Your task to perform on an android device: change text size in settings app Image 0: 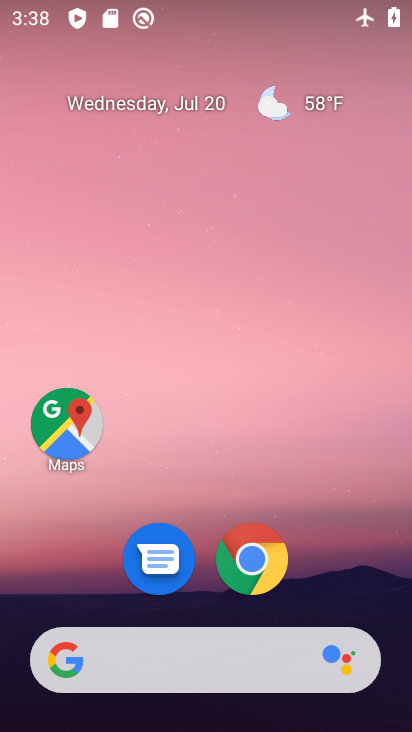
Step 0: drag from (126, 463) to (192, 2)
Your task to perform on an android device: change text size in settings app Image 1: 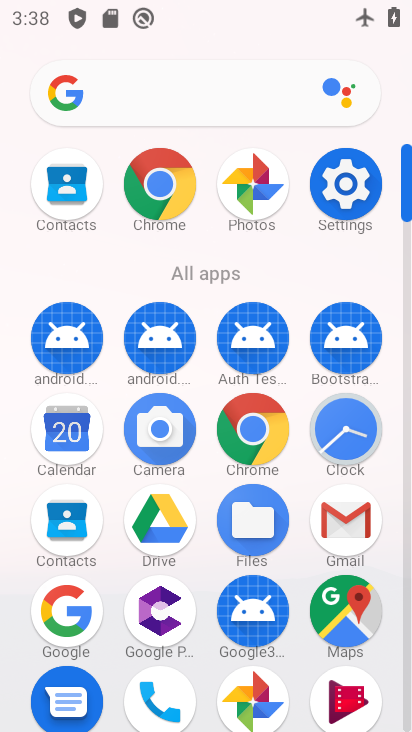
Step 1: click (356, 187)
Your task to perform on an android device: change text size in settings app Image 2: 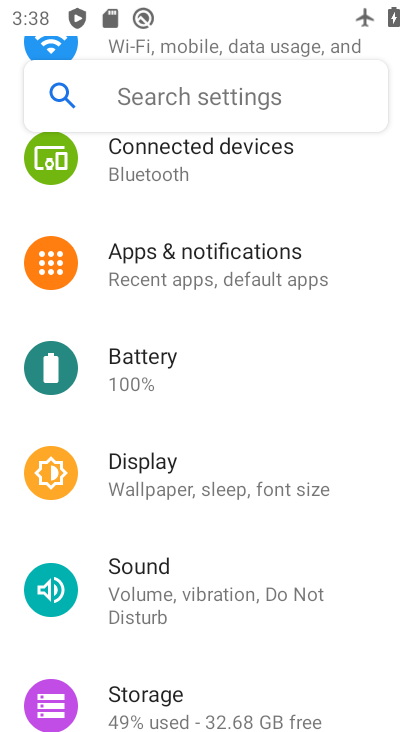
Step 2: drag from (258, 179) to (200, 618)
Your task to perform on an android device: change text size in settings app Image 3: 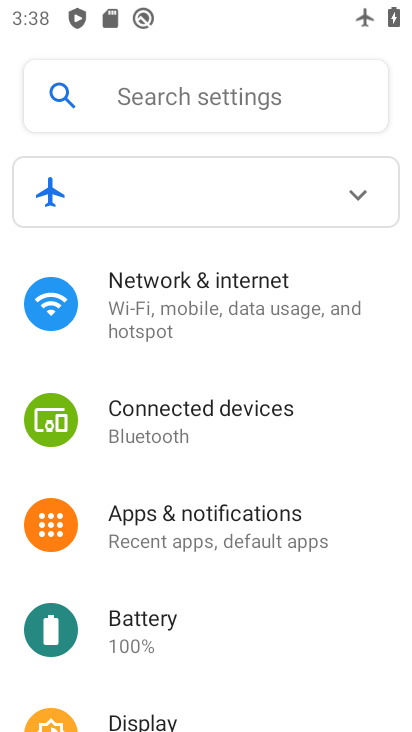
Step 3: click (158, 99)
Your task to perform on an android device: change text size in settings app Image 4: 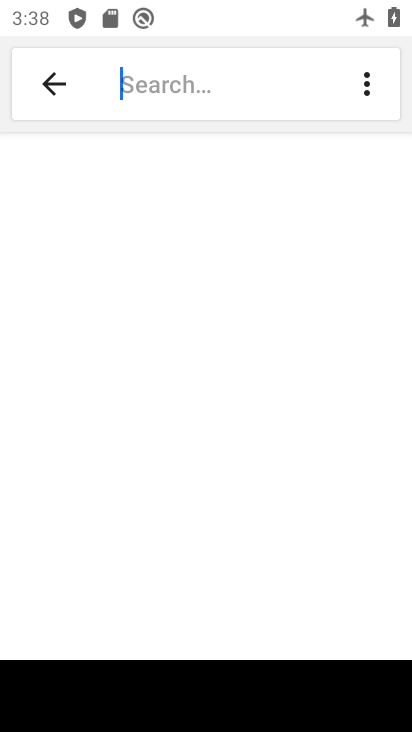
Step 4: type "text size"
Your task to perform on an android device: change text size in settings app Image 5: 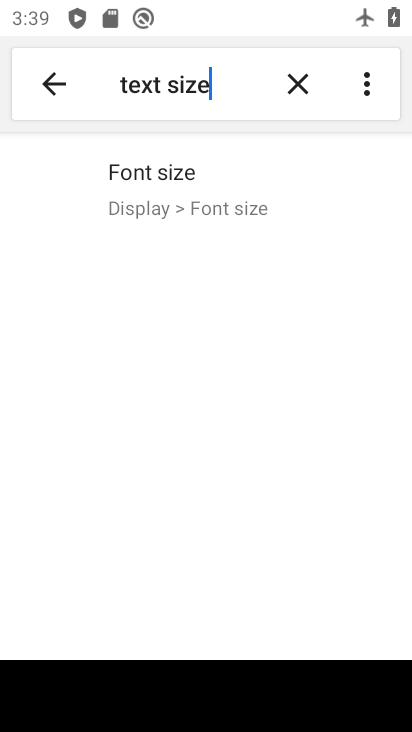
Step 5: click (213, 195)
Your task to perform on an android device: change text size in settings app Image 6: 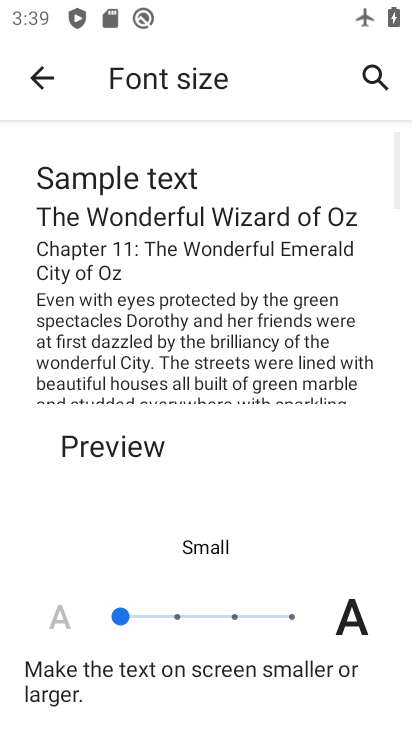
Step 6: click (234, 623)
Your task to perform on an android device: change text size in settings app Image 7: 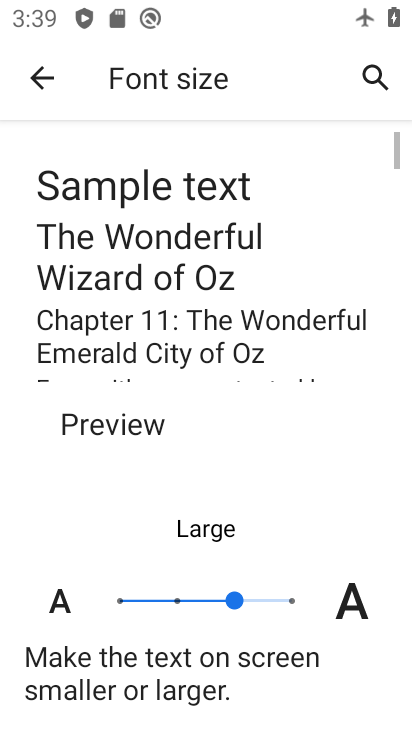
Step 7: task complete